Your task to perform on an android device: Open calendar and show me the third week of next month Image 0: 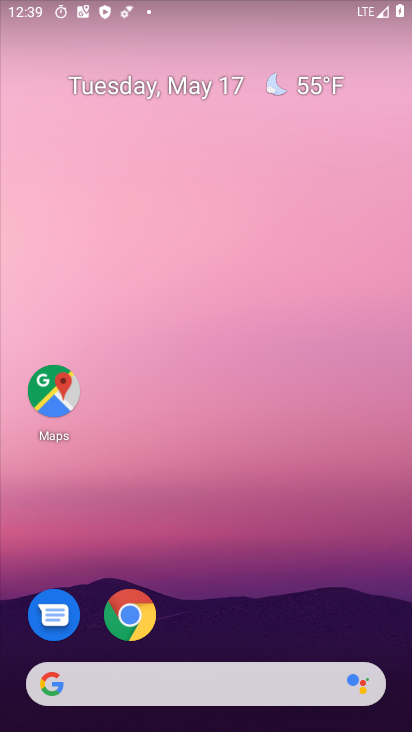
Step 0: press home button
Your task to perform on an android device: Open calendar and show me the third week of next month Image 1: 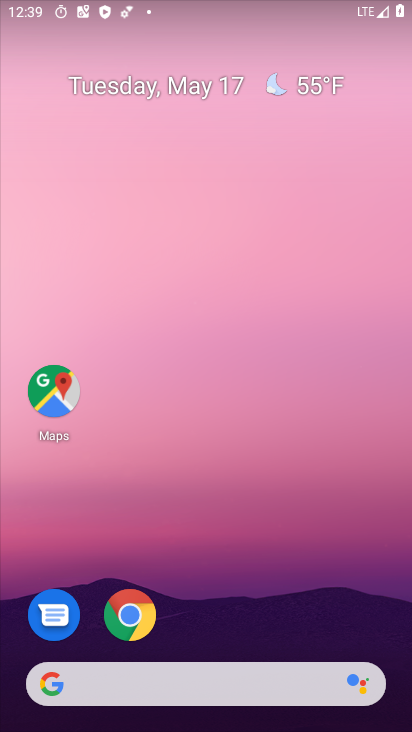
Step 1: drag from (329, 572) to (151, 93)
Your task to perform on an android device: Open calendar and show me the third week of next month Image 2: 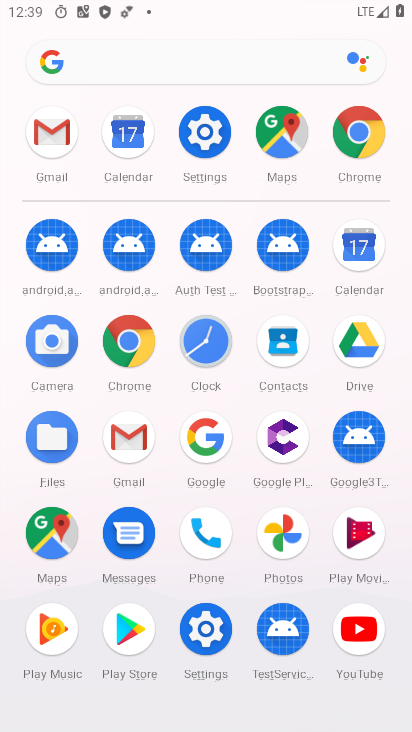
Step 2: click (341, 261)
Your task to perform on an android device: Open calendar and show me the third week of next month Image 3: 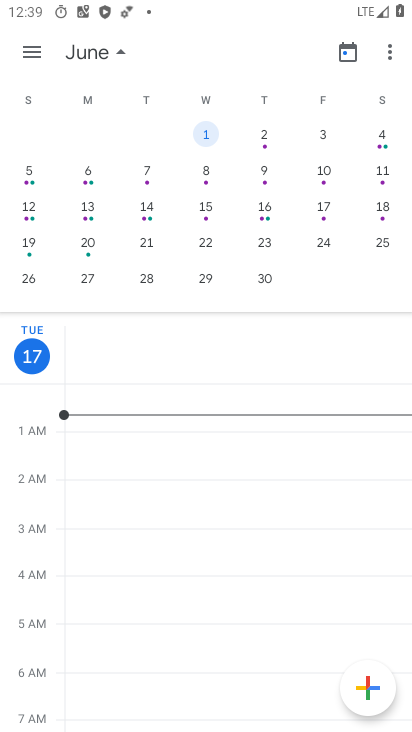
Step 3: click (198, 219)
Your task to perform on an android device: Open calendar and show me the third week of next month Image 4: 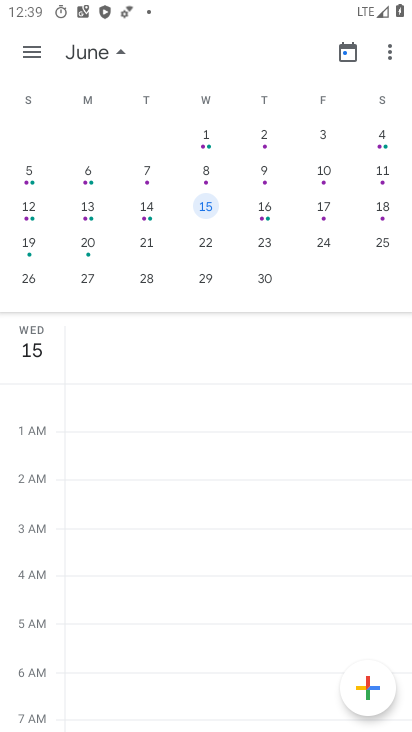
Step 4: task complete